Your task to perform on an android device: turn on priority inbox in the gmail app Image 0: 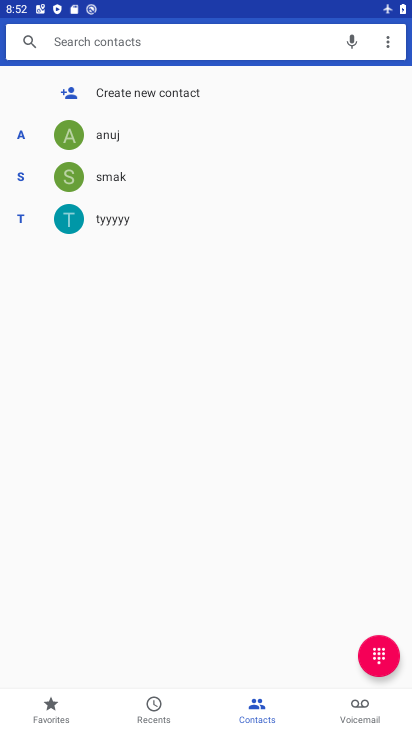
Step 0: press home button
Your task to perform on an android device: turn on priority inbox in the gmail app Image 1: 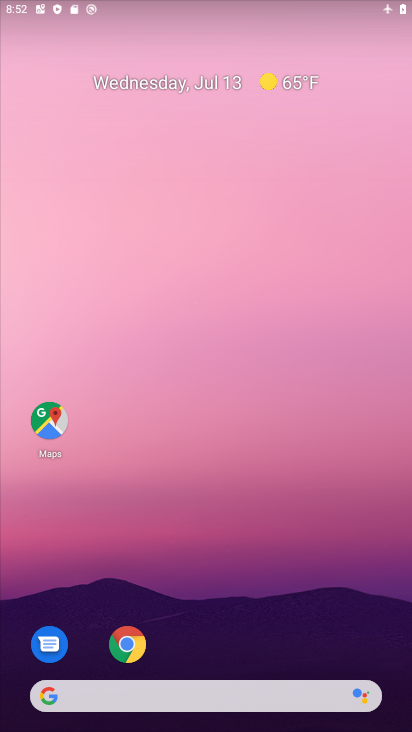
Step 1: drag from (202, 660) to (121, 32)
Your task to perform on an android device: turn on priority inbox in the gmail app Image 2: 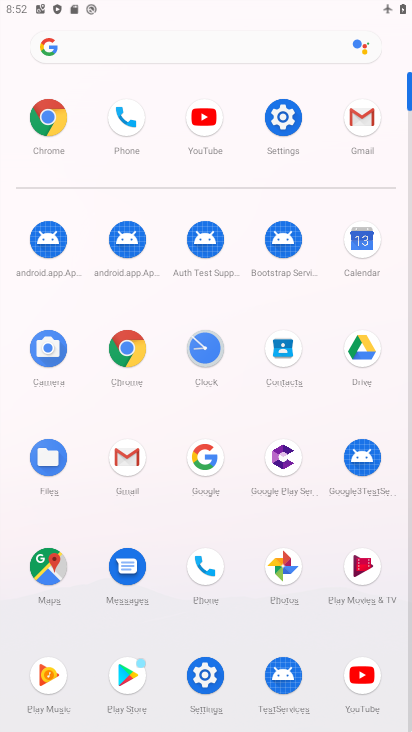
Step 2: click (358, 126)
Your task to perform on an android device: turn on priority inbox in the gmail app Image 3: 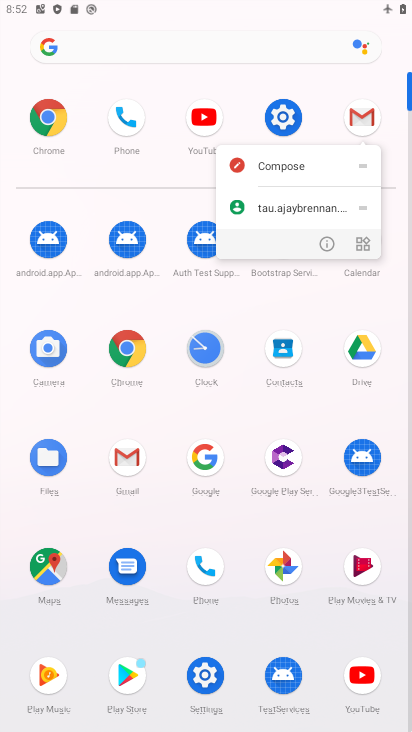
Step 3: click (358, 125)
Your task to perform on an android device: turn on priority inbox in the gmail app Image 4: 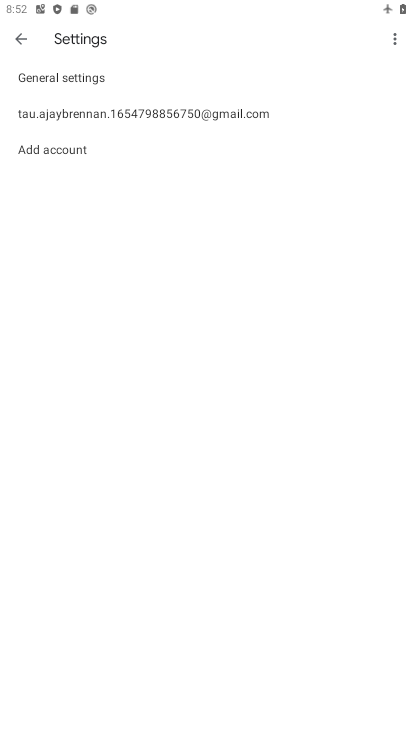
Step 4: click (21, 36)
Your task to perform on an android device: turn on priority inbox in the gmail app Image 5: 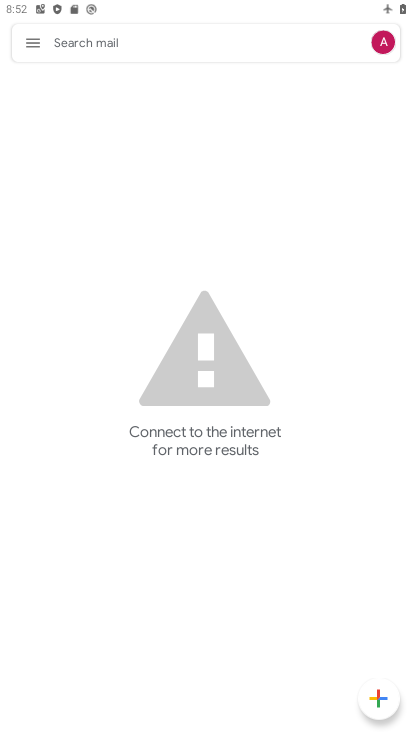
Step 5: click (39, 52)
Your task to perform on an android device: turn on priority inbox in the gmail app Image 6: 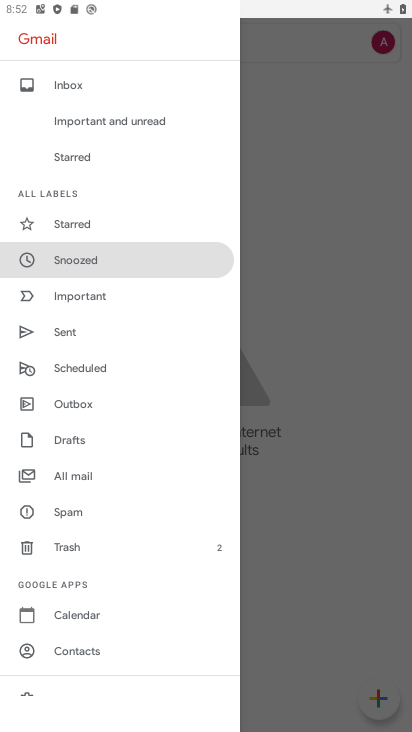
Step 6: drag from (68, 618) to (2, 310)
Your task to perform on an android device: turn on priority inbox in the gmail app Image 7: 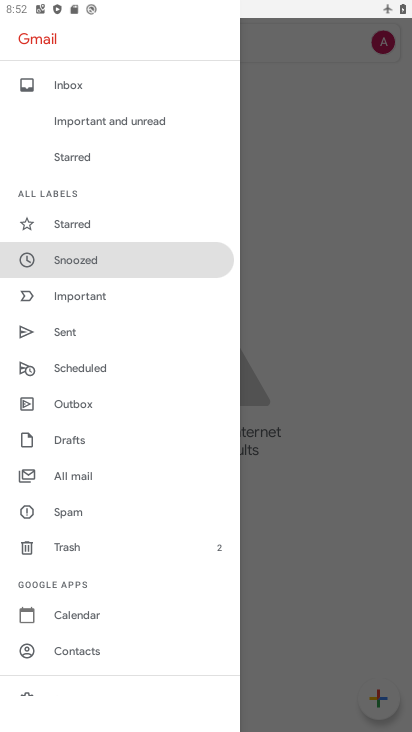
Step 7: drag from (88, 612) to (119, 294)
Your task to perform on an android device: turn on priority inbox in the gmail app Image 8: 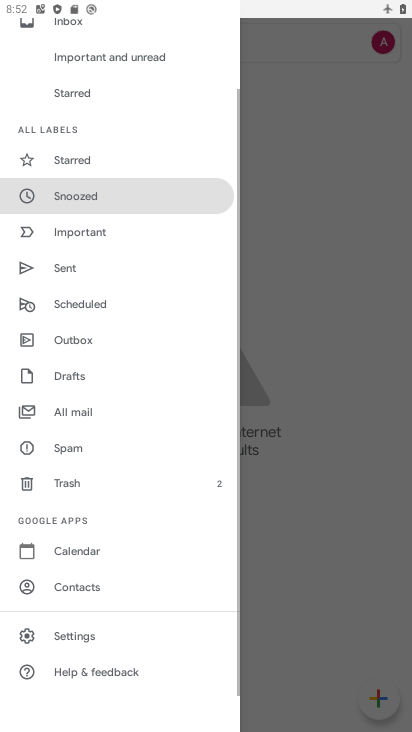
Step 8: click (77, 635)
Your task to perform on an android device: turn on priority inbox in the gmail app Image 9: 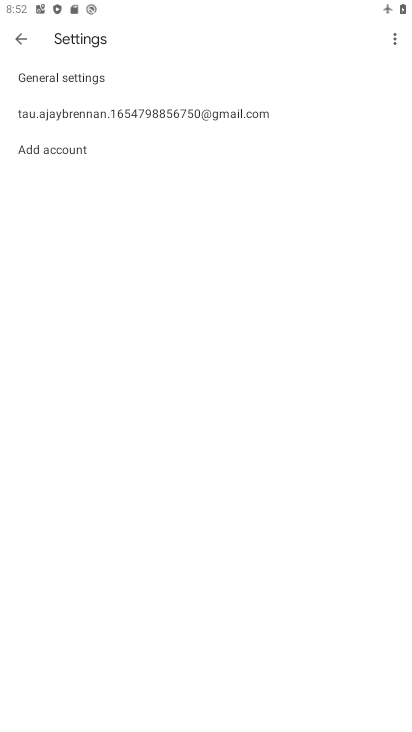
Step 9: click (49, 114)
Your task to perform on an android device: turn on priority inbox in the gmail app Image 10: 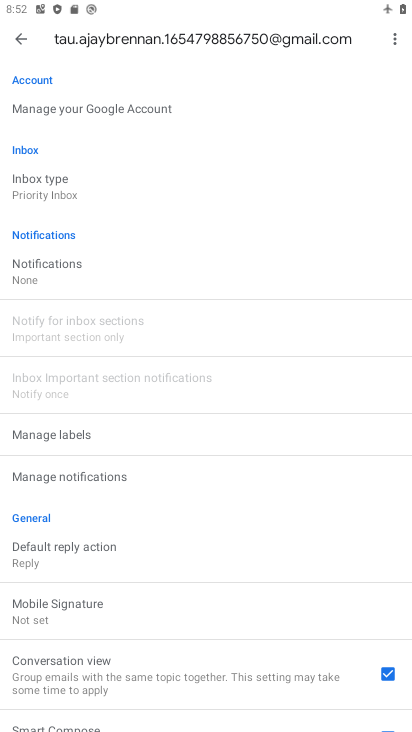
Step 10: click (24, 186)
Your task to perform on an android device: turn on priority inbox in the gmail app Image 11: 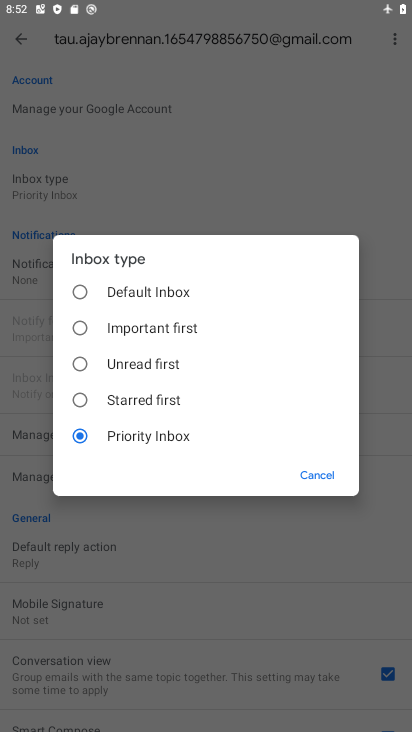
Step 11: task complete